Your task to perform on an android device: check the backup settings in the google photos Image 0: 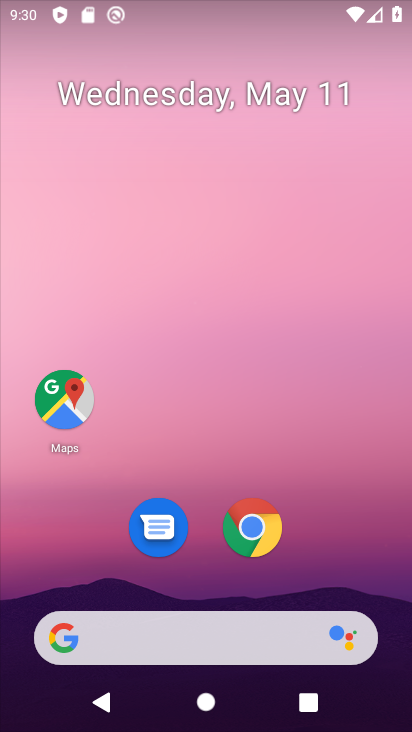
Step 0: drag from (108, 604) to (224, 143)
Your task to perform on an android device: check the backup settings in the google photos Image 1: 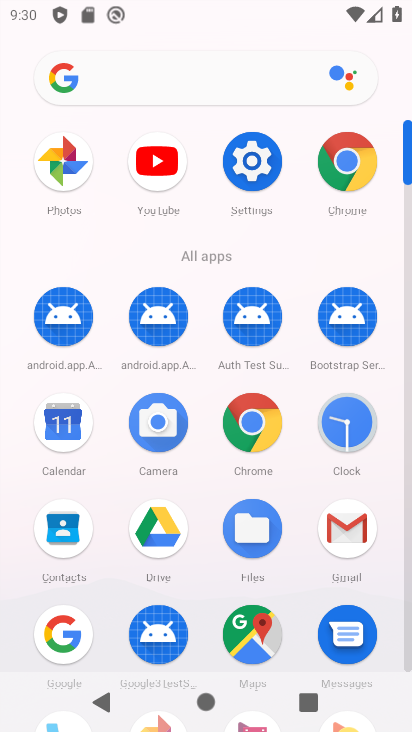
Step 1: drag from (178, 652) to (230, 413)
Your task to perform on an android device: check the backup settings in the google photos Image 2: 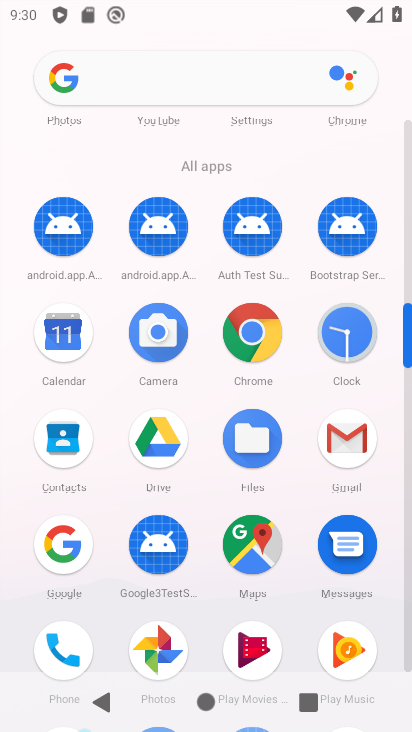
Step 2: drag from (178, 621) to (223, 444)
Your task to perform on an android device: check the backup settings in the google photos Image 3: 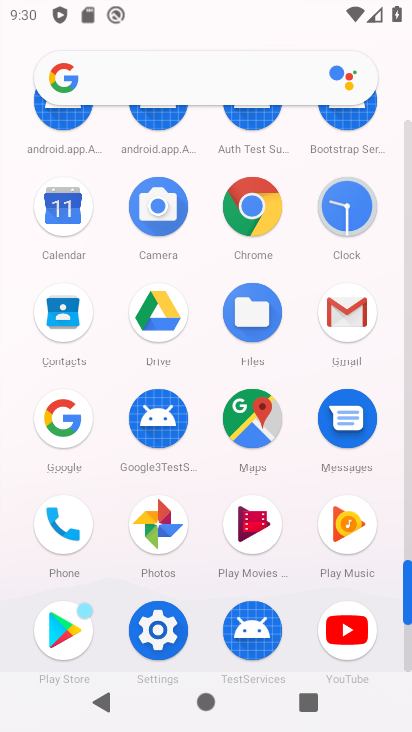
Step 3: click (161, 527)
Your task to perform on an android device: check the backup settings in the google photos Image 4: 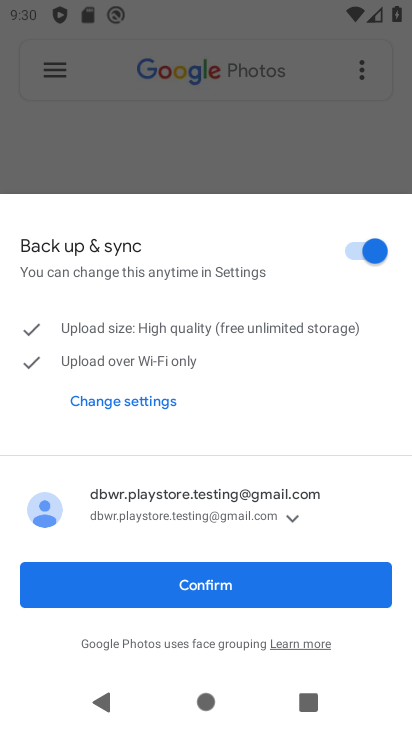
Step 4: click (209, 614)
Your task to perform on an android device: check the backup settings in the google photos Image 5: 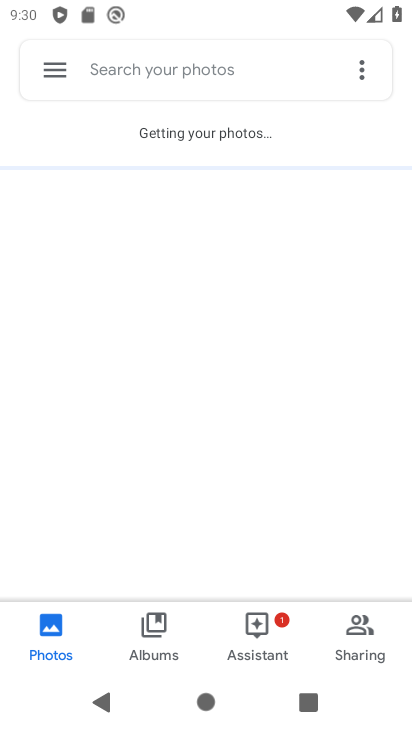
Step 5: click (71, 74)
Your task to perform on an android device: check the backup settings in the google photos Image 6: 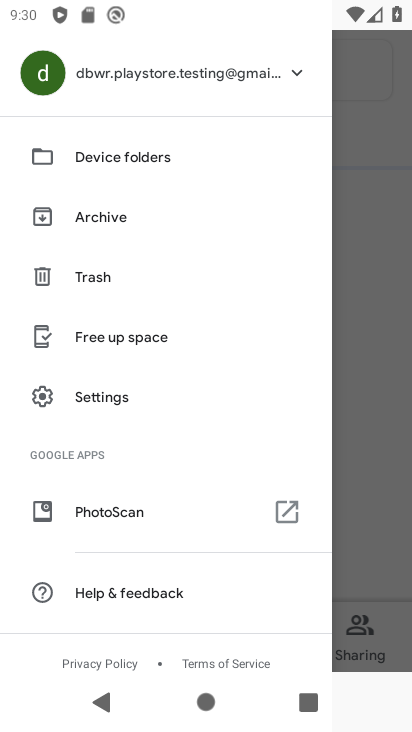
Step 6: click (142, 394)
Your task to perform on an android device: check the backup settings in the google photos Image 7: 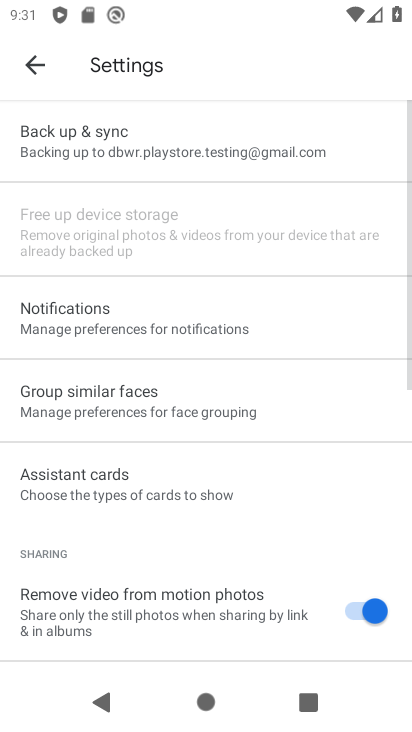
Step 7: click (205, 124)
Your task to perform on an android device: check the backup settings in the google photos Image 8: 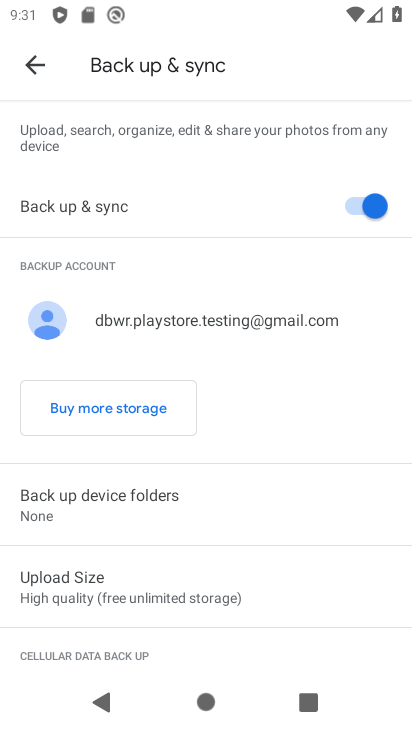
Step 8: task complete